Your task to perform on an android device: Play the last video I watched on Youtube Image 0: 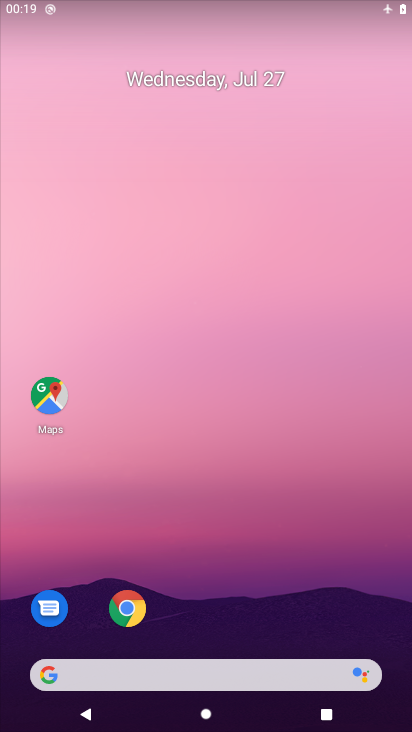
Step 0: press home button
Your task to perform on an android device: Play the last video I watched on Youtube Image 1: 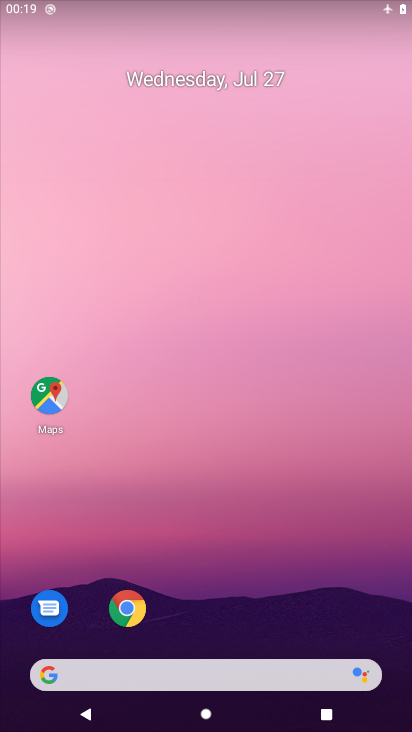
Step 1: drag from (244, 626) to (214, 219)
Your task to perform on an android device: Play the last video I watched on Youtube Image 2: 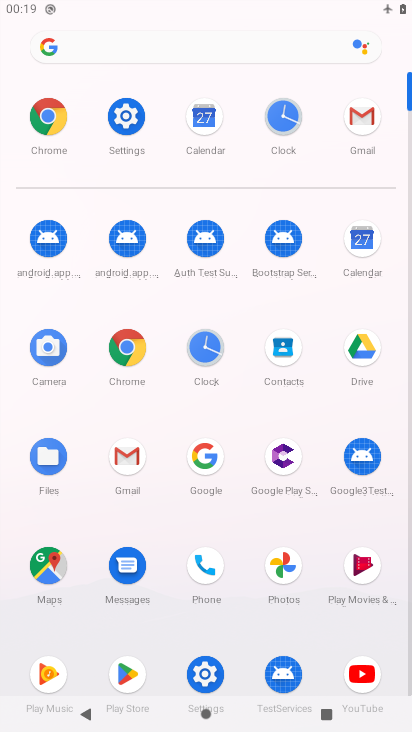
Step 2: click (363, 675)
Your task to perform on an android device: Play the last video I watched on Youtube Image 3: 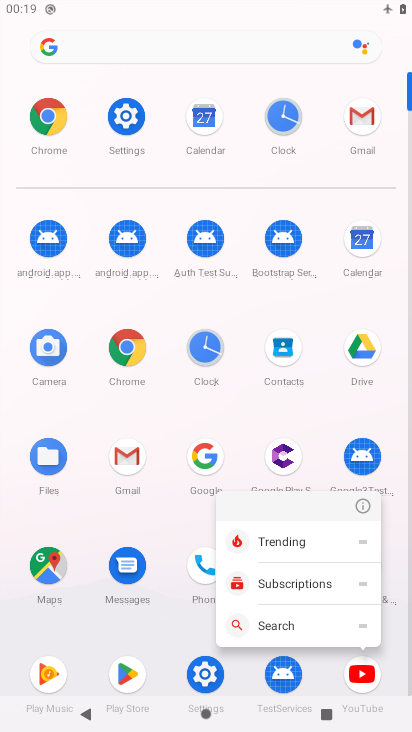
Step 3: click (363, 675)
Your task to perform on an android device: Play the last video I watched on Youtube Image 4: 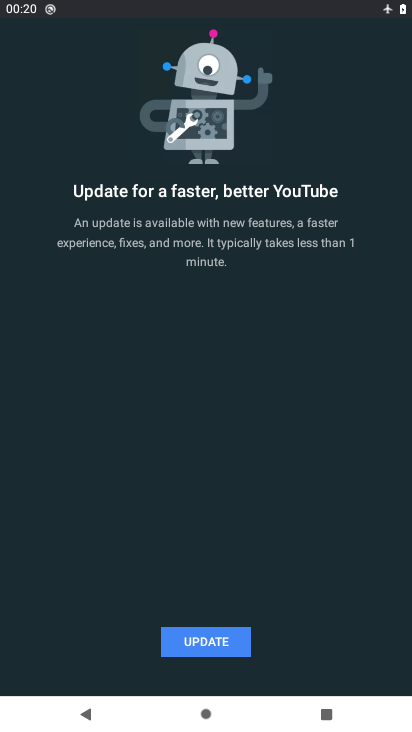
Step 4: click (235, 644)
Your task to perform on an android device: Play the last video I watched on Youtube Image 5: 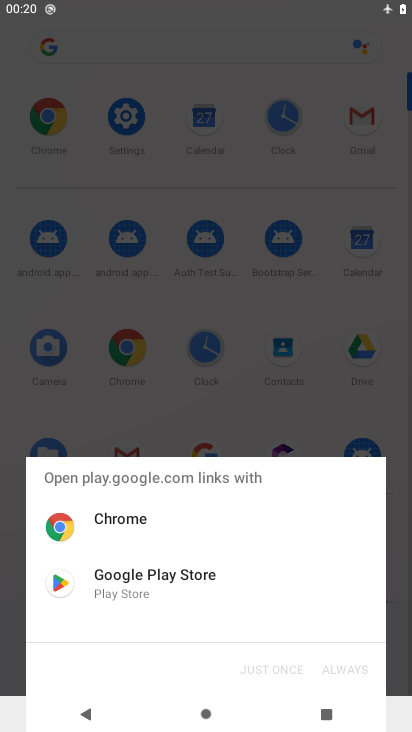
Step 5: click (110, 584)
Your task to perform on an android device: Play the last video I watched on Youtube Image 6: 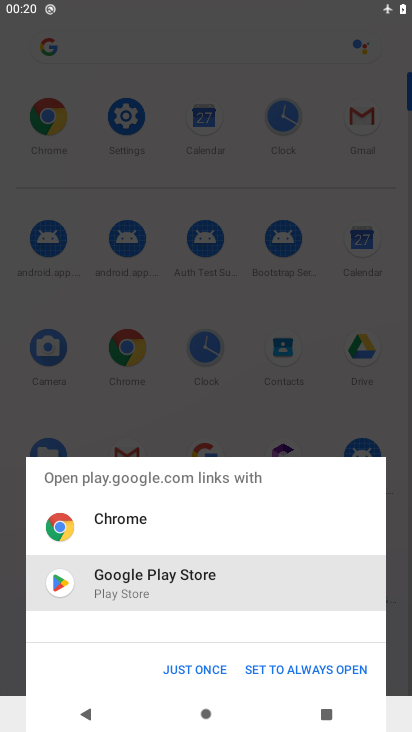
Step 6: click (191, 664)
Your task to perform on an android device: Play the last video I watched on Youtube Image 7: 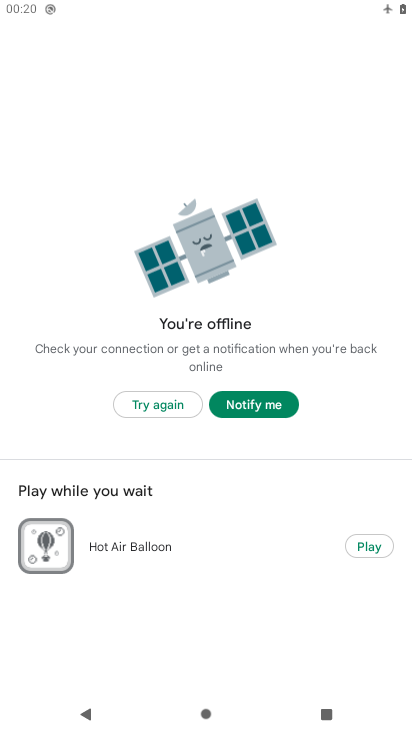
Step 7: click (155, 402)
Your task to perform on an android device: Play the last video I watched on Youtube Image 8: 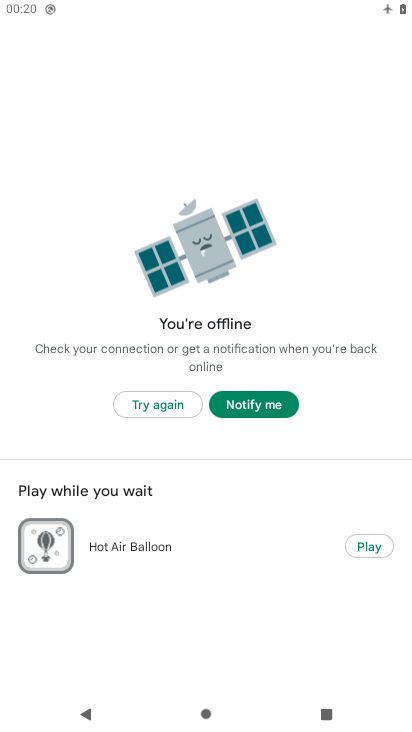
Step 8: click (155, 402)
Your task to perform on an android device: Play the last video I watched on Youtube Image 9: 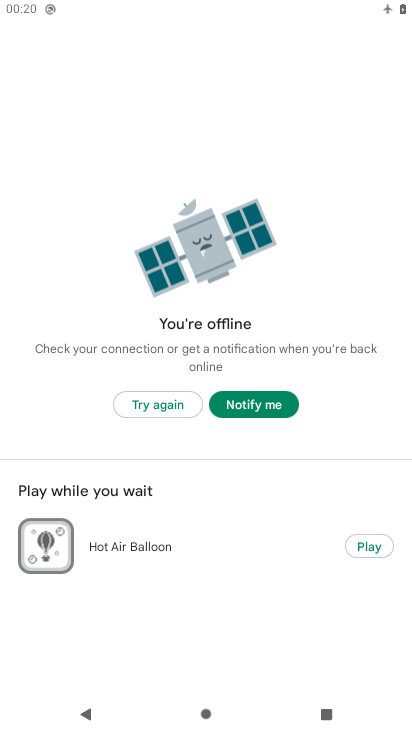
Step 9: click (163, 404)
Your task to perform on an android device: Play the last video I watched on Youtube Image 10: 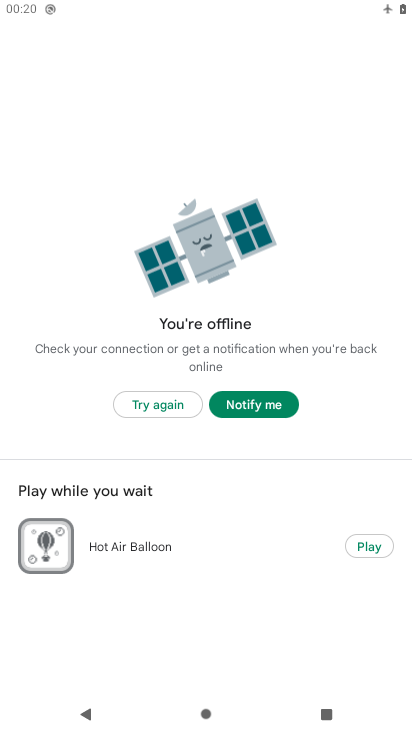
Step 10: drag from (202, 3) to (157, 623)
Your task to perform on an android device: Play the last video I watched on Youtube Image 11: 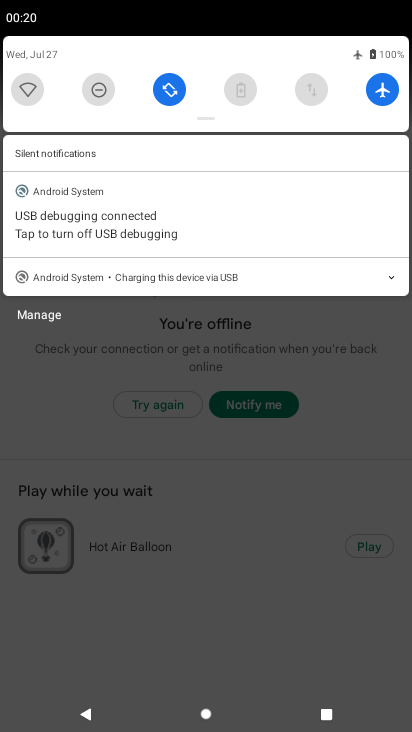
Step 11: click (14, 82)
Your task to perform on an android device: Play the last video I watched on Youtube Image 12: 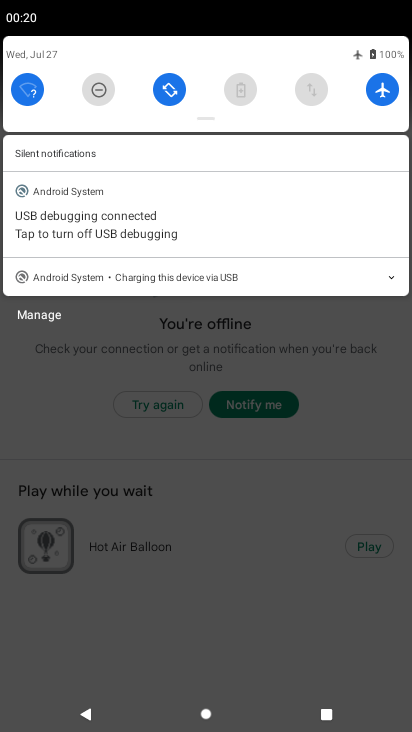
Step 12: drag from (166, 317) to (150, 26)
Your task to perform on an android device: Play the last video I watched on Youtube Image 13: 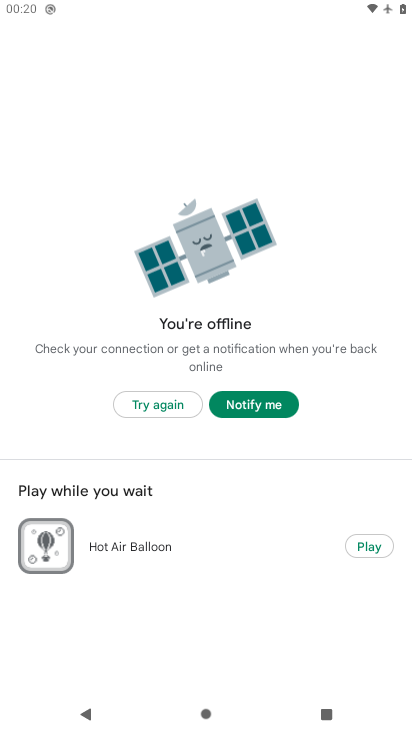
Step 13: click (168, 401)
Your task to perform on an android device: Play the last video I watched on Youtube Image 14: 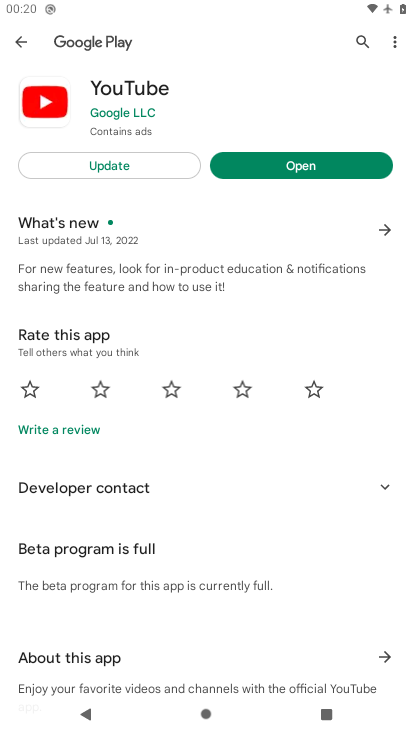
Step 14: click (131, 170)
Your task to perform on an android device: Play the last video I watched on Youtube Image 15: 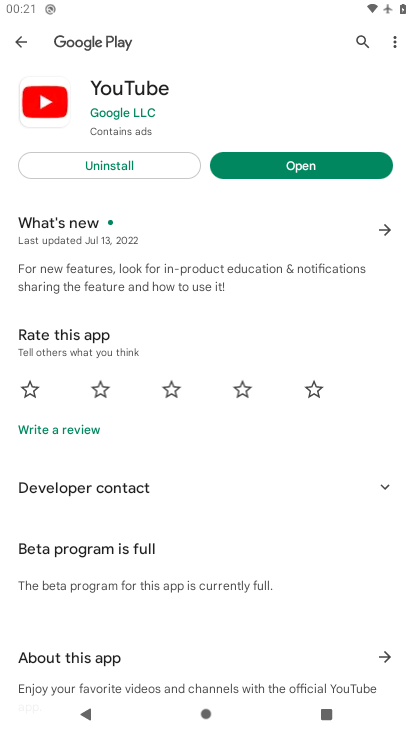
Step 15: click (239, 166)
Your task to perform on an android device: Play the last video I watched on Youtube Image 16: 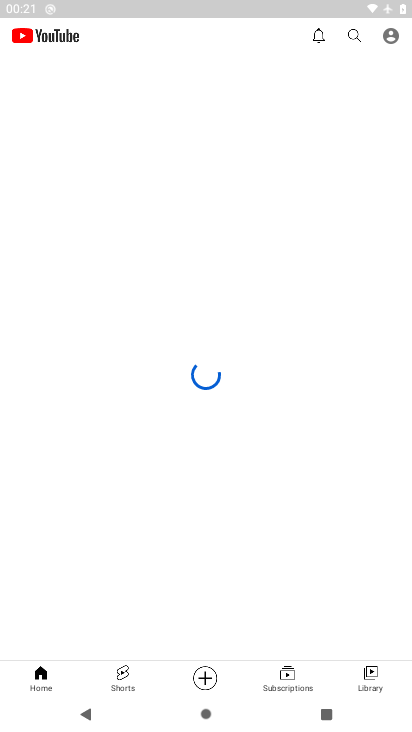
Step 16: click (372, 664)
Your task to perform on an android device: Play the last video I watched on Youtube Image 17: 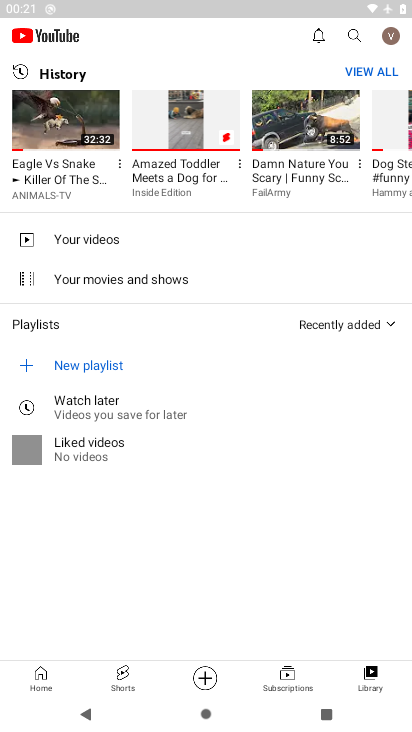
Step 17: click (75, 107)
Your task to perform on an android device: Play the last video I watched on Youtube Image 18: 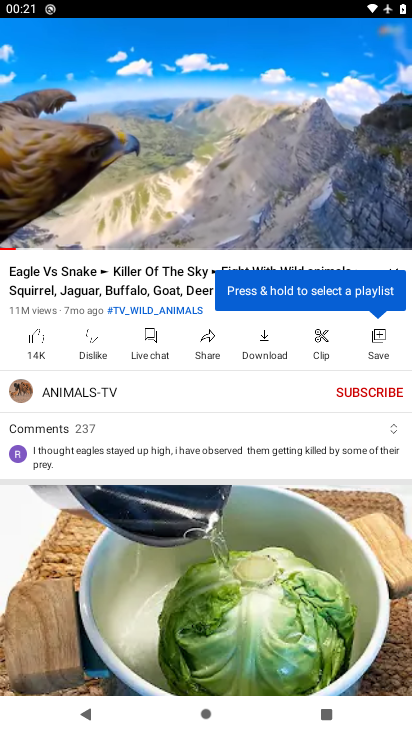
Step 18: task complete